Your task to perform on an android device: turn vacation reply on in the gmail app Image 0: 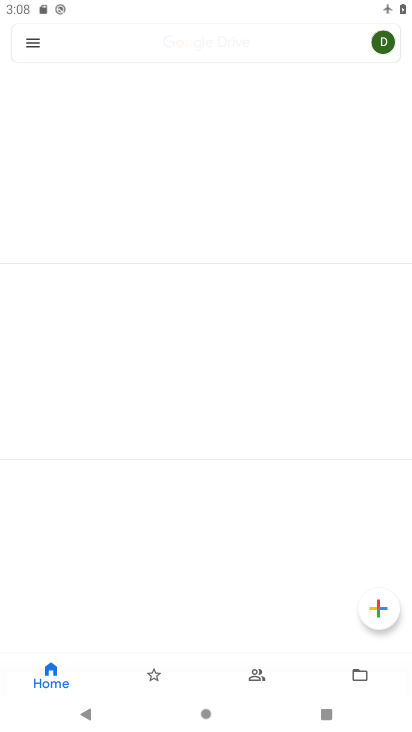
Step 0: press home button
Your task to perform on an android device: turn vacation reply on in the gmail app Image 1: 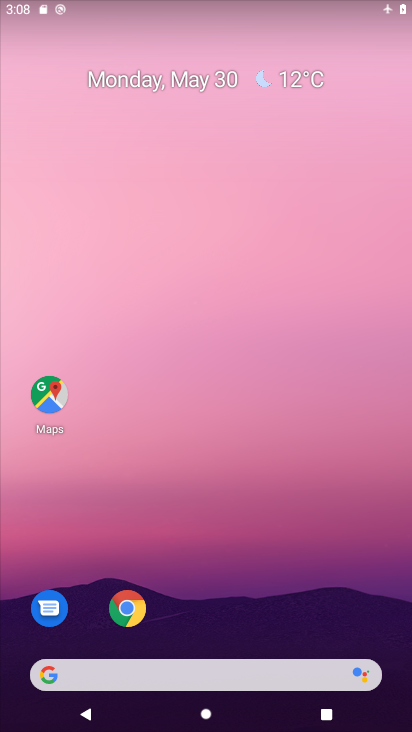
Step 1: drag from (267, 577) to (215, 115)
Your task to perform on an android device: turn vacation reply on in the gmail app Image 2: 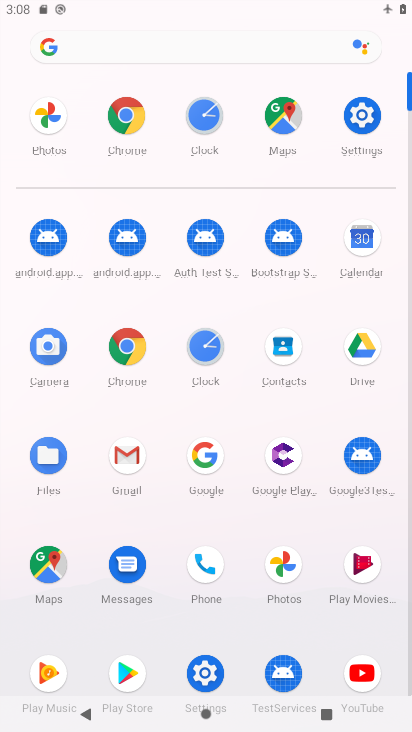
Step 2: click (126, 455)
Your task to perform on an android device: turn vacation reply on in the gmail app Image 3: 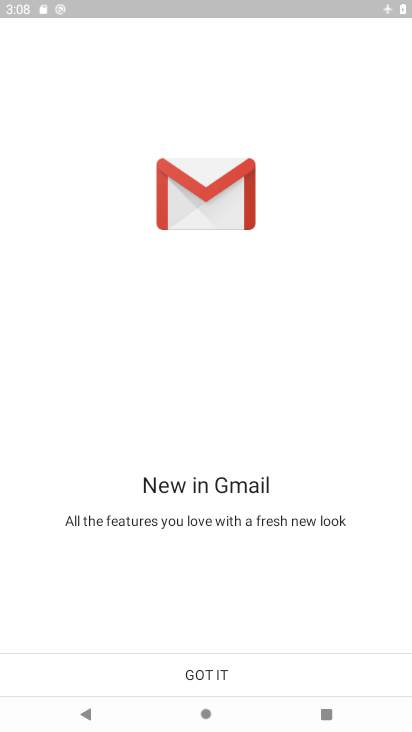
Step 3: click (216, 667)
Your task to perform on an android device: turn vacation reply on in the gmail app Image 4: 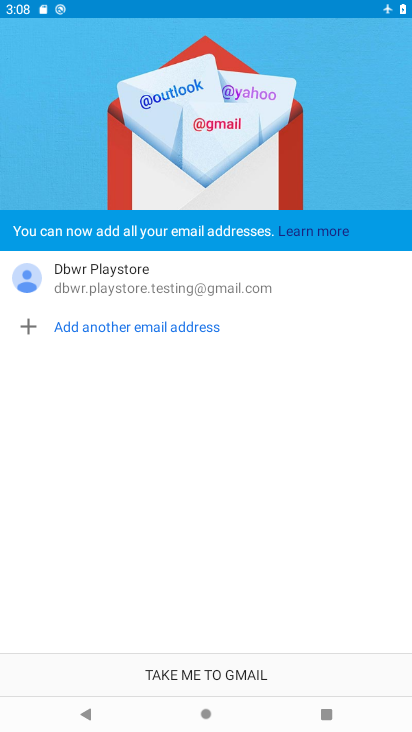
Step 4: click (220, 672)
Your task to perform on an android device: turn vacation reply on in the gmail app Image 5: 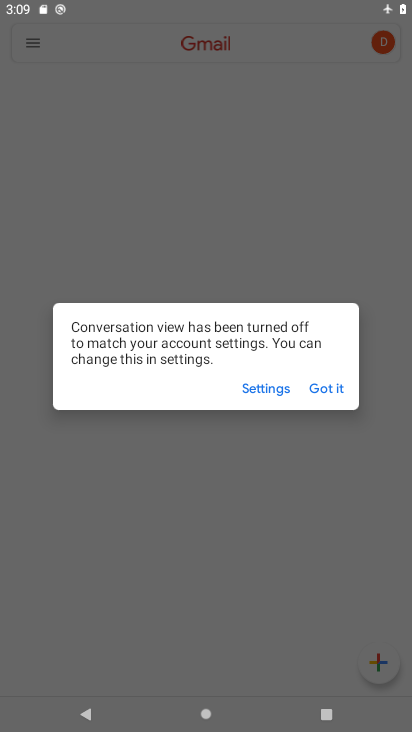
Step 5: click (335, 382)
Your task to perform on an android device: turn vacation reply on in the gmail app Image 6: 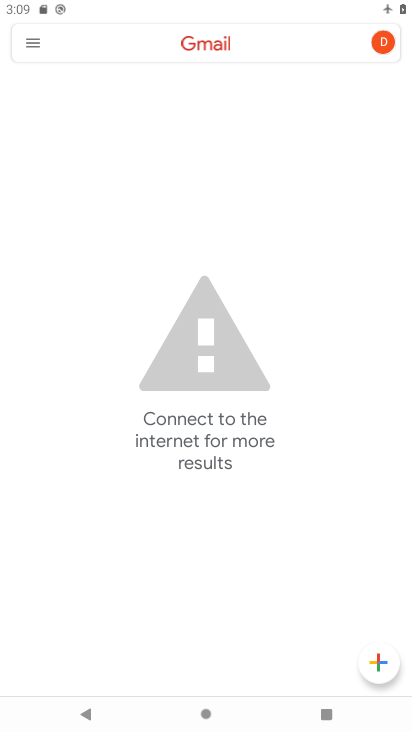
Step 6: click (31, 42)
Your task to perform on an android device: turn vacation reply on in the gmail app Image 7: 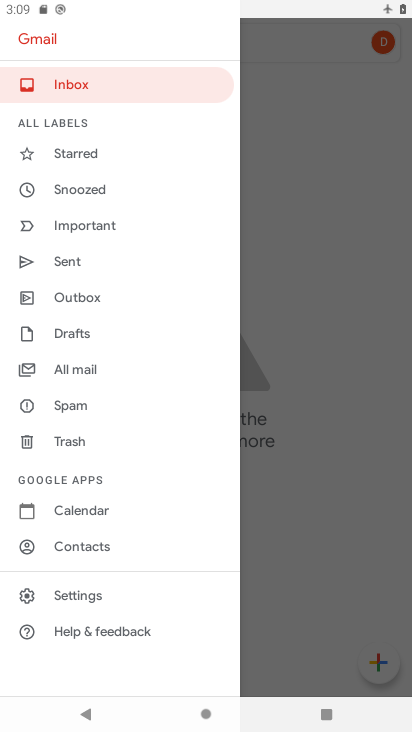
Step 7: click (108, 589)
Your task to perform on an android device: turn vacation reply on in the gmail app Image 8: 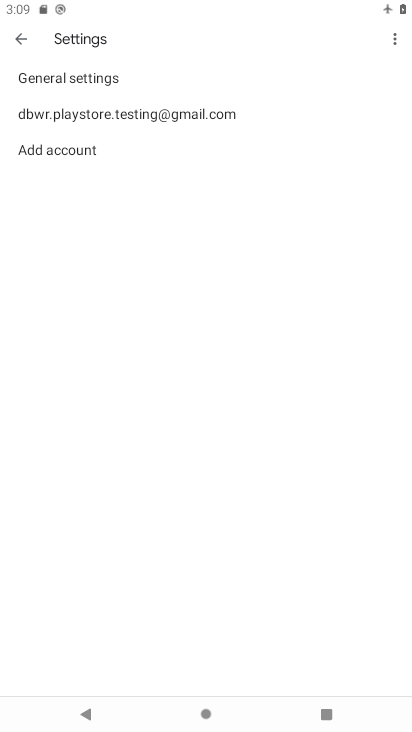
Step 8: click (141, 119)
Your task to perform on an android device: turn vacation reply on in the gmail app Image 9: 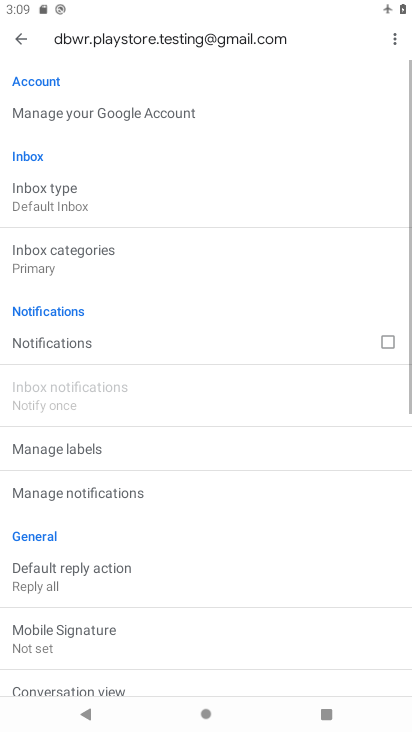
Step 9: drag from (230, 638) to (230, 140)
Your task to perform on an android device: turn vacation reply on in the gmail app Image 10: 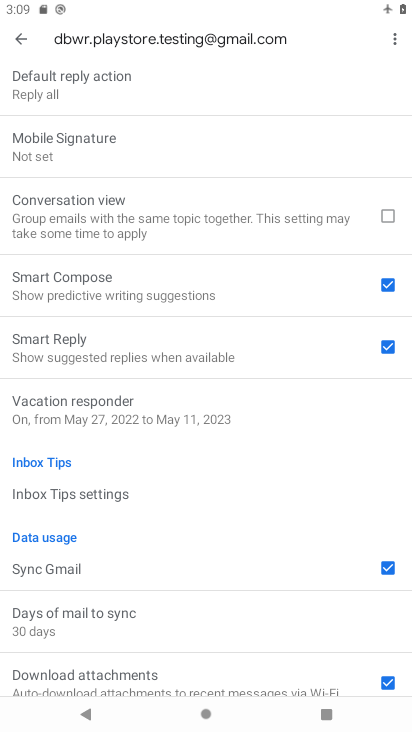
Step 10: click (141, 418)
Your task to perform on an android device: turn vacation reply on in the gmail app Image 11: 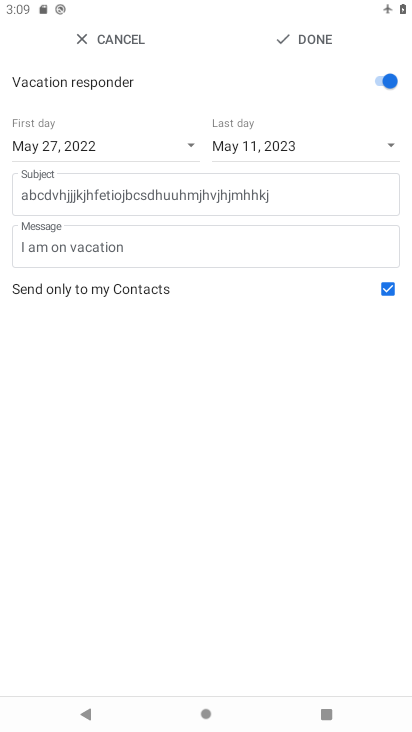
Step 11: click (324, 31)
Your task to perform on an android device: turn vacation reply on in the gmail app Image 12: 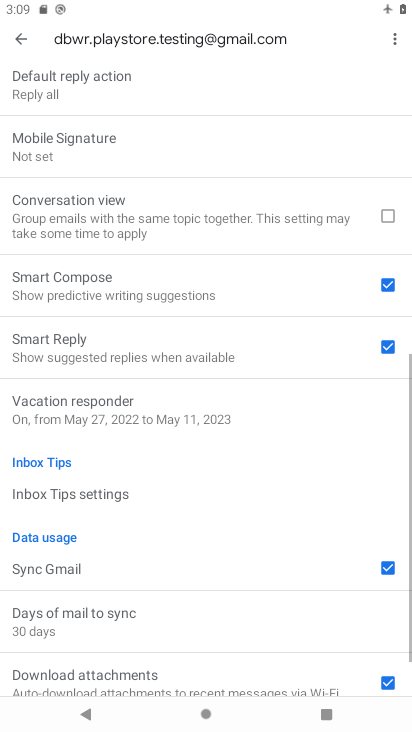
Step 12: task complete